Your task to perform on an android device: Show me popular games on the Play Store Image 0: 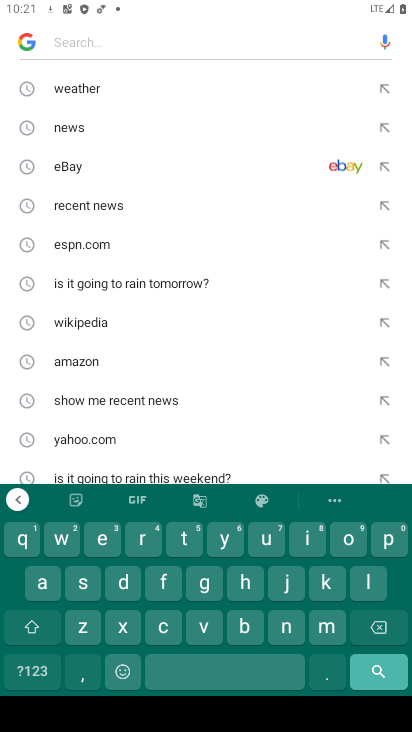
Step 0: press home button
Your task to perform on an android device: Show me popular games on the Play Store Image 1: 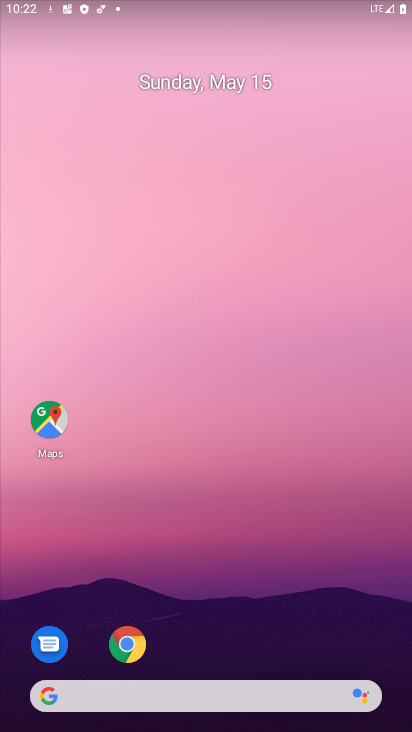
Step 1: drag from (317, 692) to (129, 265)
Your task to perform on an android device: Show me popular games on the Play Store Image 2: 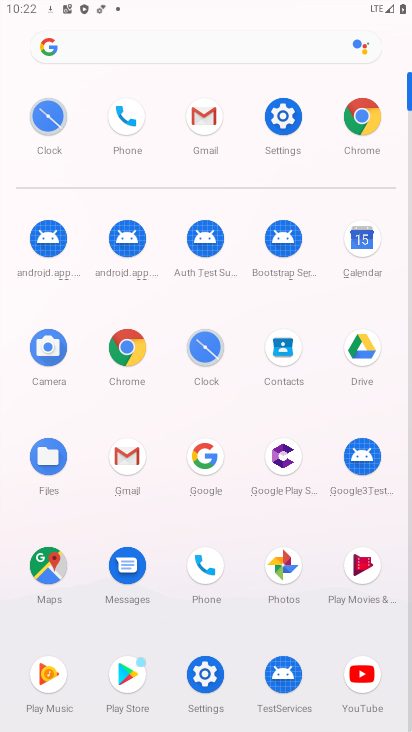
Step 2: click (128, 666)
Your task to perform on an android device: Show me popular games on the Play Store Image 3: 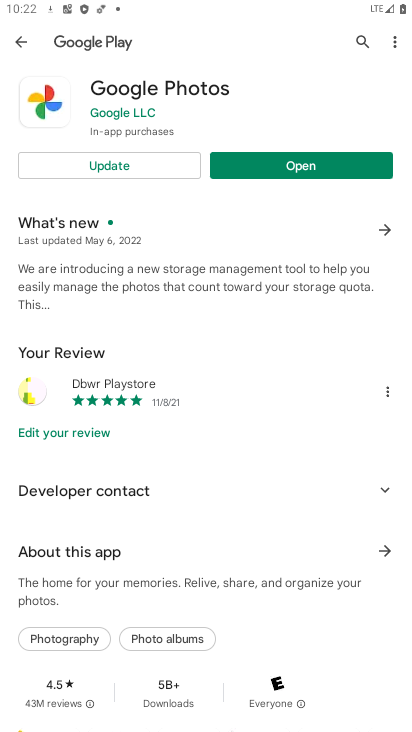
Step 3: click (358, 39)
Your task to perform on an android device: Show me popular games on the Play Store Image 4: 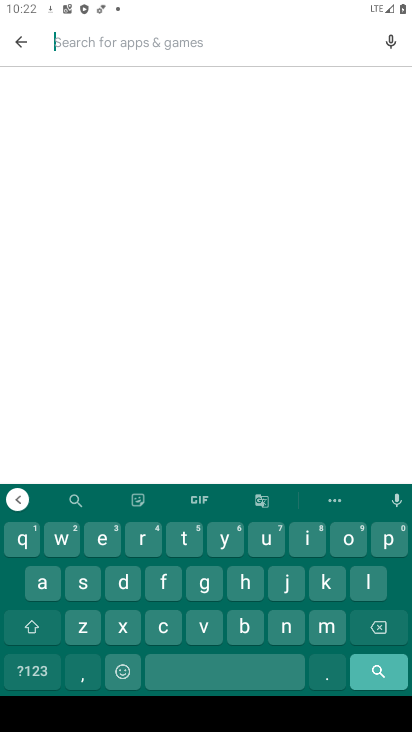
Step 4: click (387, 548)
Your task to perform on an android device: Show me popular games on the Play Store Image 5: 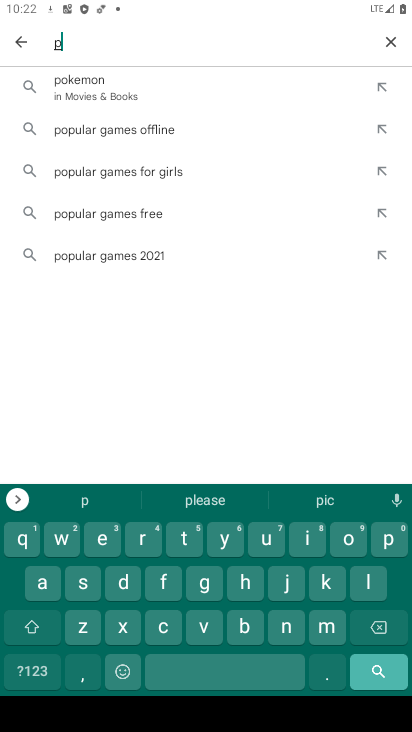
Step 5: click (346, 535)
Your task to perform on an android device: Show me popular games on the Play Store Image 6: 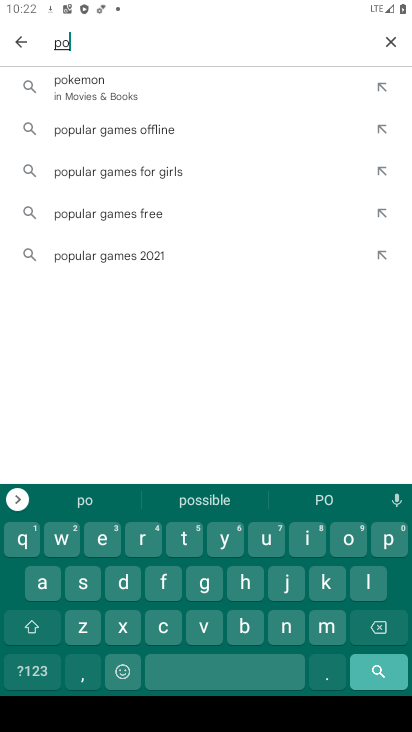
Step 6: click (124, 209)
Your task to perform on an android device: Show me popular games on the Play Store Image 7: 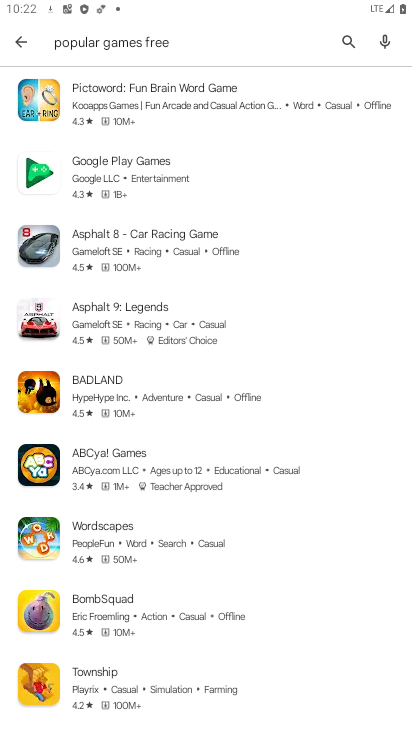
Step 7: task complete